Your task to perform on an android device: turn on priority inbox in the gmail app Image 0: 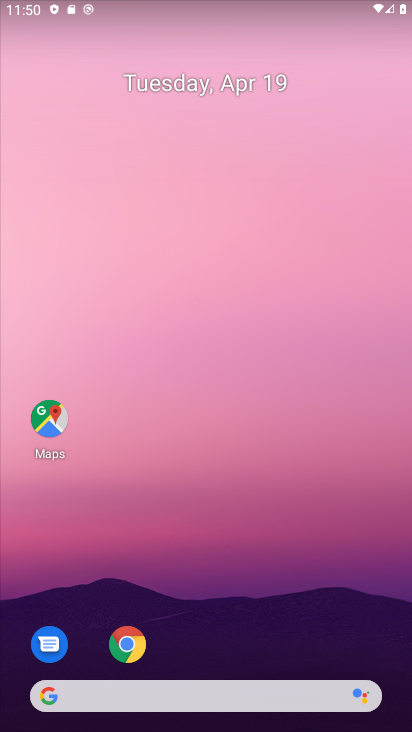
Step 0: drag from (286, 626) to (356, 79)
Your task to perform on an android device: turn on priority inbox in the gmail app Image 1: 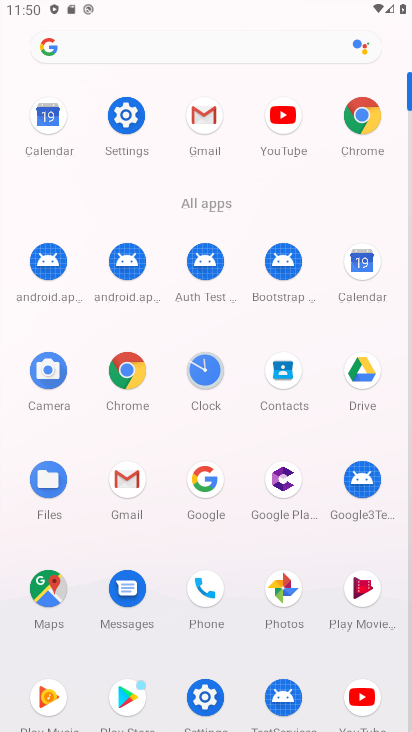
Step 1: click (206, 115)
Your task to perform on an android device: turn on priority inbox in the gmail app Image 2: 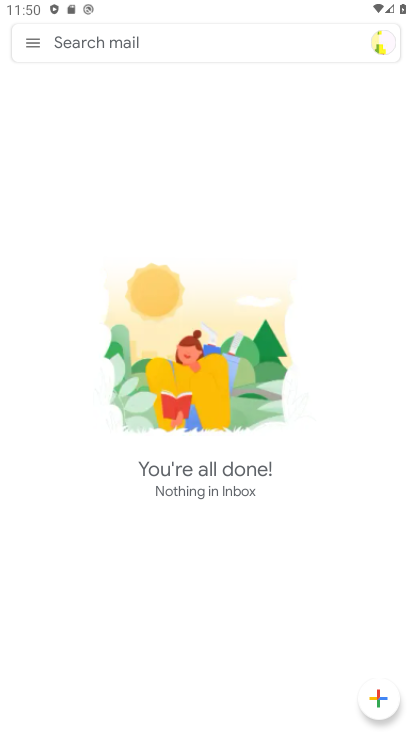
Step 2: click (35, 40)
Your task to perform on an android device: turn on priority inbox in the gmail app Image 3: 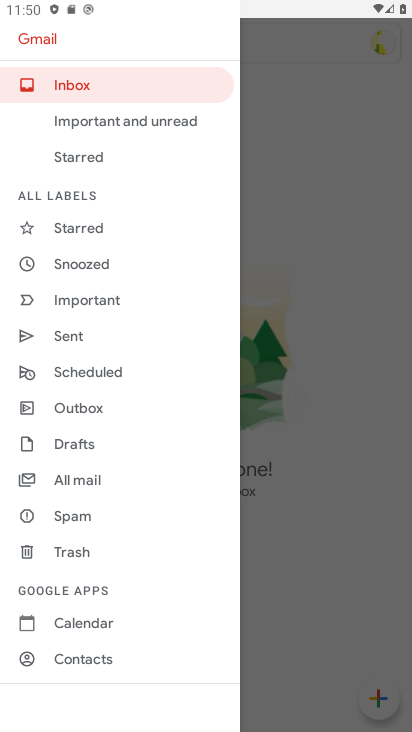
Step 3: drag from (141, 491) to (139, 352)
Your task to perform on an android device: turn on priority inbox in the gmail app Image 4: 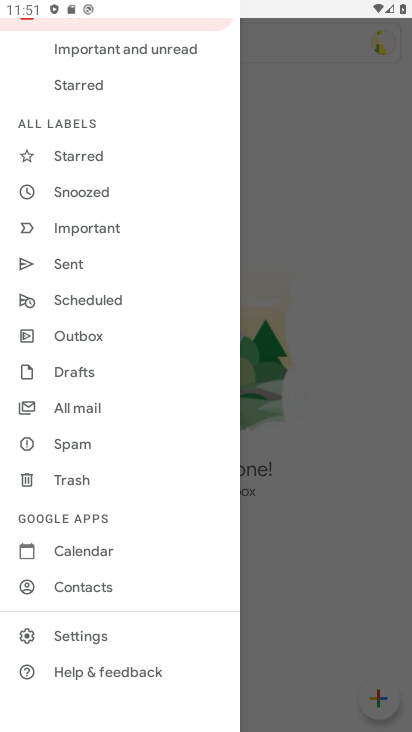
Step 4: click (97, 624)
Your task to perform on an android device: turn on priority inbox in the gmail app Image 5: 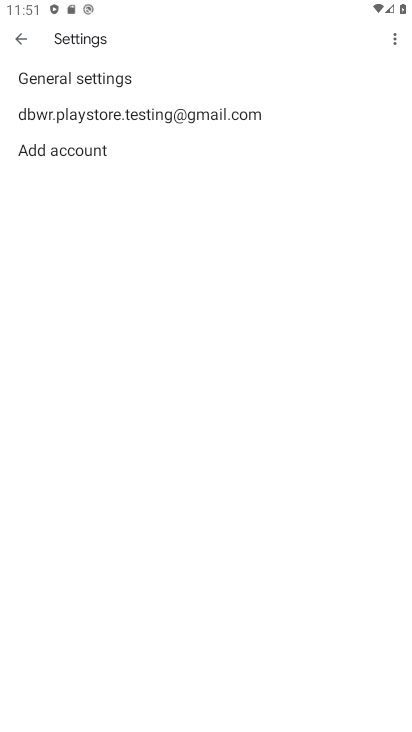
Step 5: click (244, 109)
Your task to perform on an android device: turn on priority inbox in the gmail app Image 6: 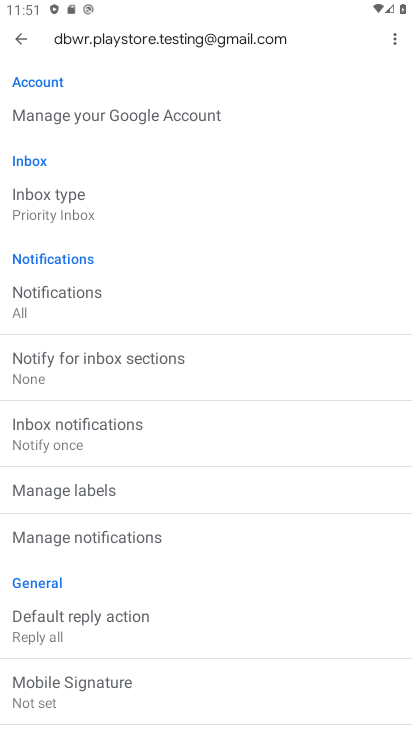
Step 6: task complete